Your task to perform on an android device: What's on my calendar today? Image 0: 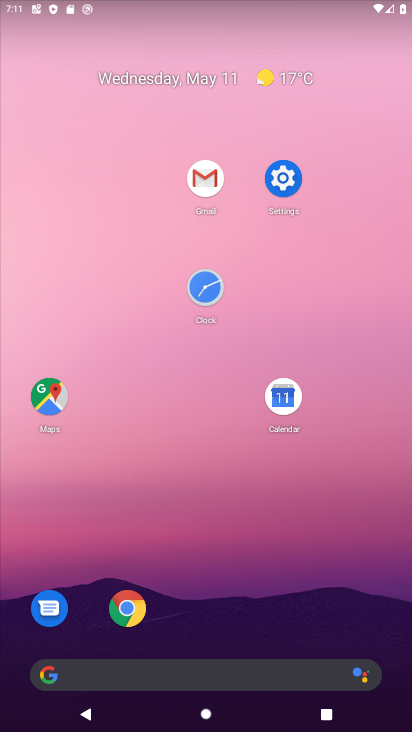
Step 0: drag from (270, 595) to (256, 321)
Your task to perform on an android device: What's on my calendar today? Image 1: 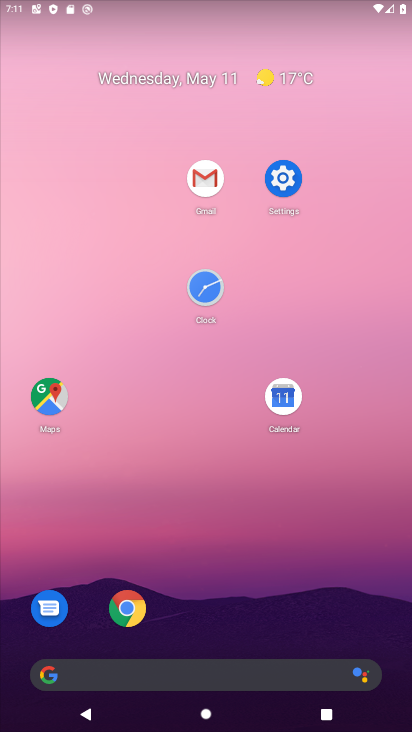
Step 1: click (272, 402)
Your task to perform on an android device: What's on my calendar today? Image 2: 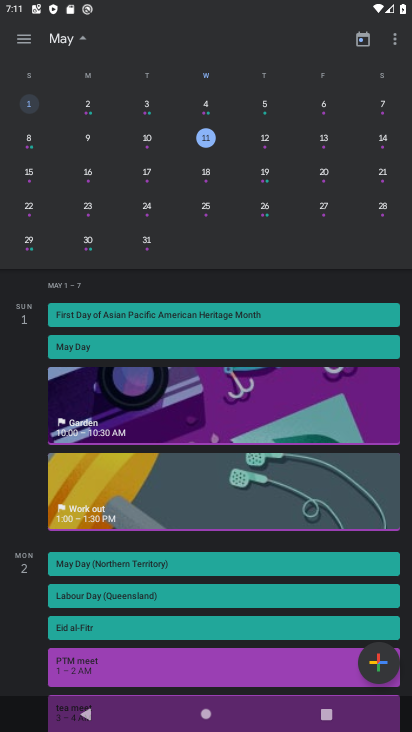
Step 2: click (265, 142)
Your task to perform on an android device: What's on my calendar today? Image 3: 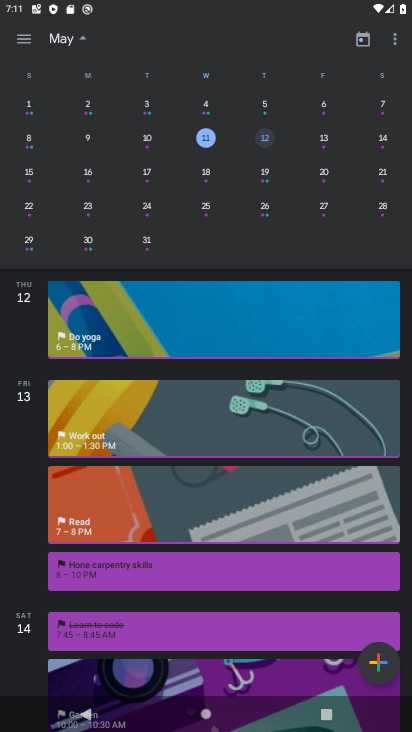
Step 3: task complete